Your task to perform on an android device: Go to Amazon Image 0: 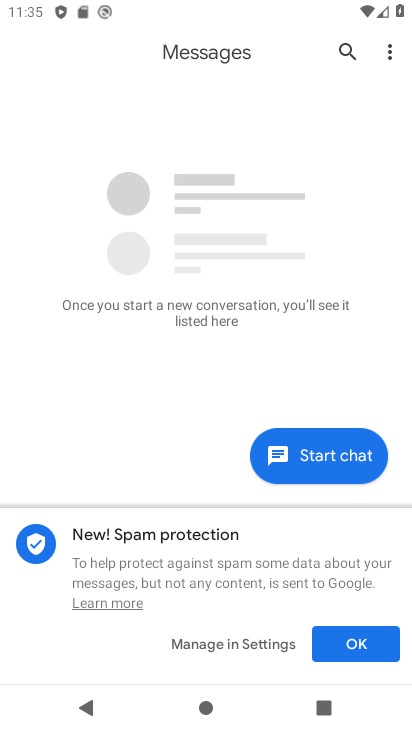
Step 0: press home button
Your task to perform on an android device: Go to Amazon Image 1: 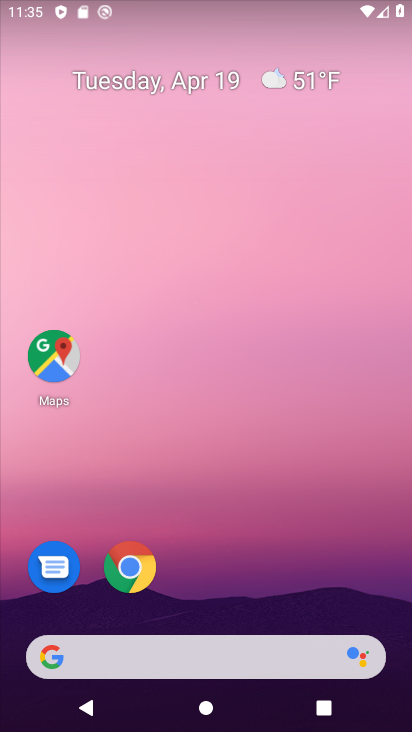
Step 1: click (141, 570)
Your task to perform on an android device: Go to Amazon Image 2: 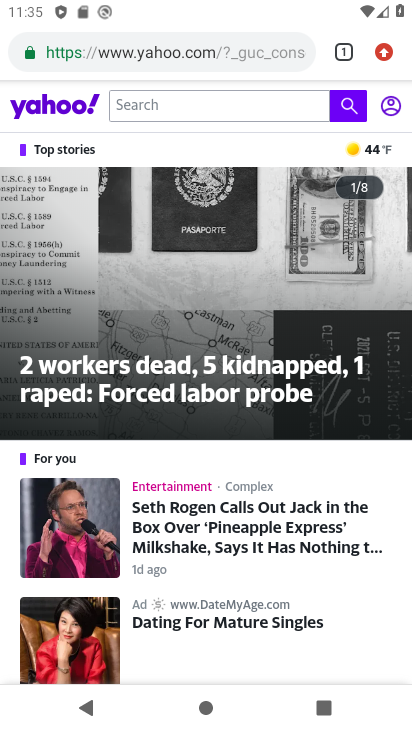
Step 2: click (205, 41)
Your task to perform on an android device: Go to Amazon Image 3: 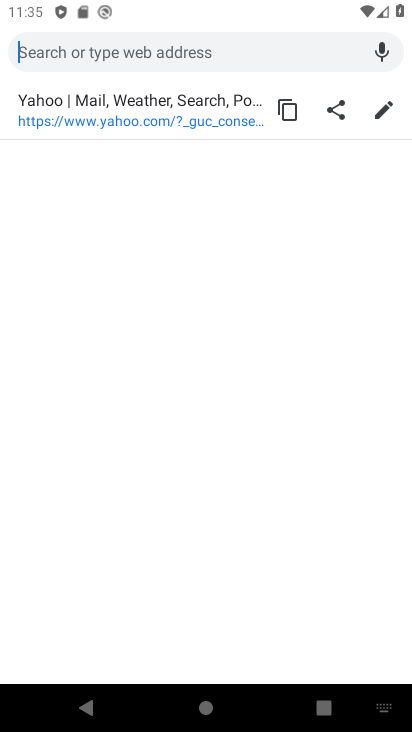
Step 3: type "amazon.com"
Your task to perform on an android device: Go to Amazon Image 4: 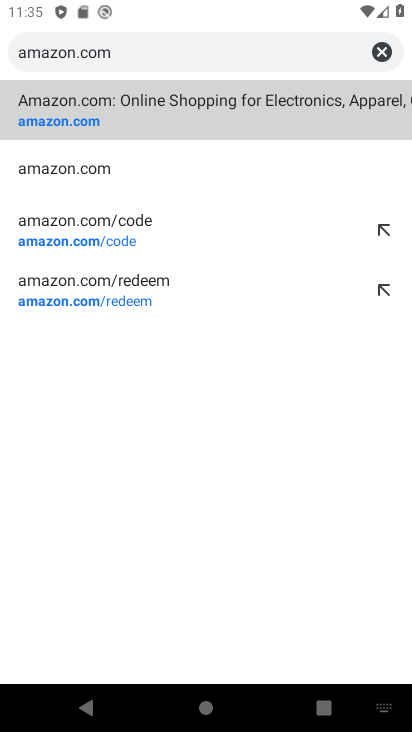
Step 4: click (133, 120)
Your task to perform on an android device: Go to Amazon Image 5: 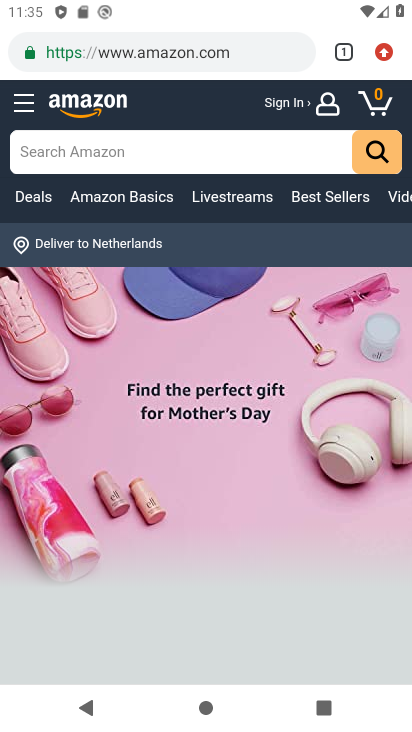
Step 5: task complete